Your task to perform on an android device: clear all cookies in the chrome app Image 0: 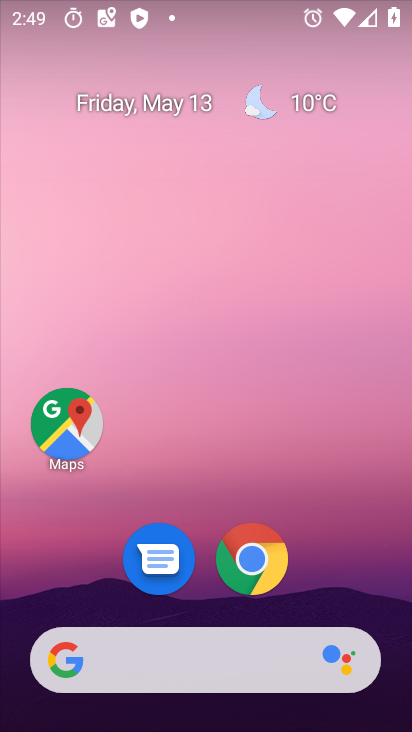
Step 0: click (244, 554)
Your task to perform on an android device: clear all cookies in the chrome app Image 1: 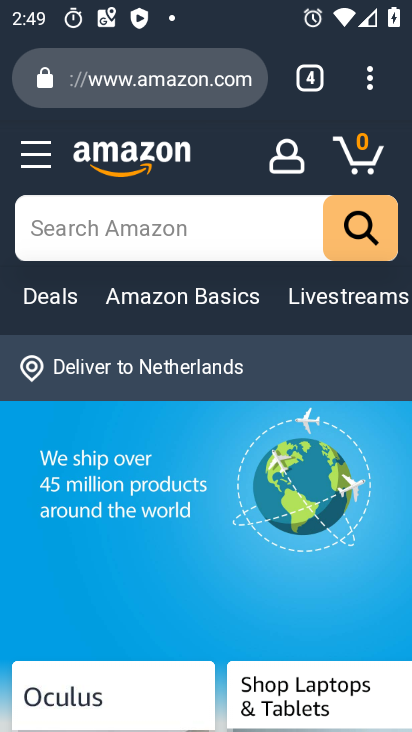
Step 1: drag from (375, 82) to (120, 428)
Your task to perform on an android device: clear all cookies in the chrome app Image 2: 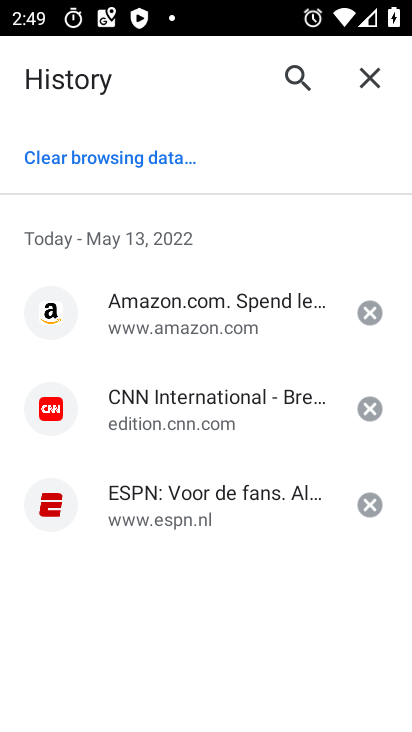
Step 2: click (121, 152)
Your task to perform on an android device: clear all cookies in the chrome app Image 3: 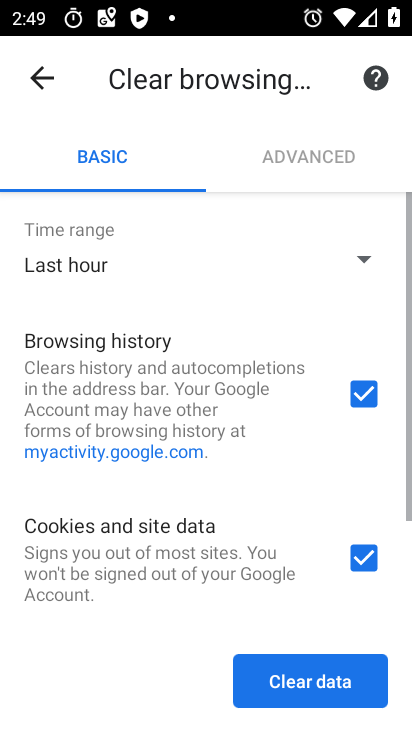
Step 3: click (329, 673)
Your task to perform on an android device: clear all cookies in the chrome app Image 4: 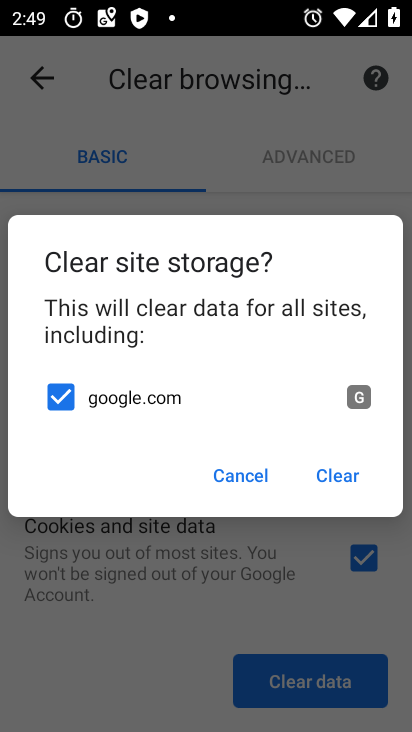
Step 4: click (337, 476)
Your task to perform on an android device: clear all cookies in the chrome app Image 5: 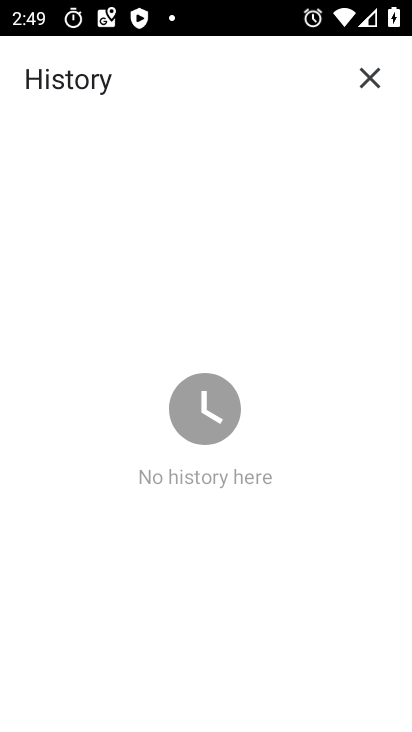
Step 5: task complete